Your task to perform on an android device: remove spam from my inbox in the gmail app Image 0: 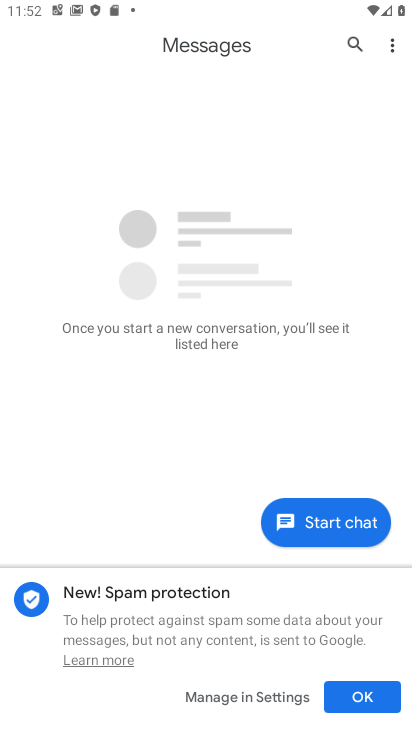
Step 0: press home button
Your task to perform on an android device: remove spam from my inbox in the gmail app Image 1: 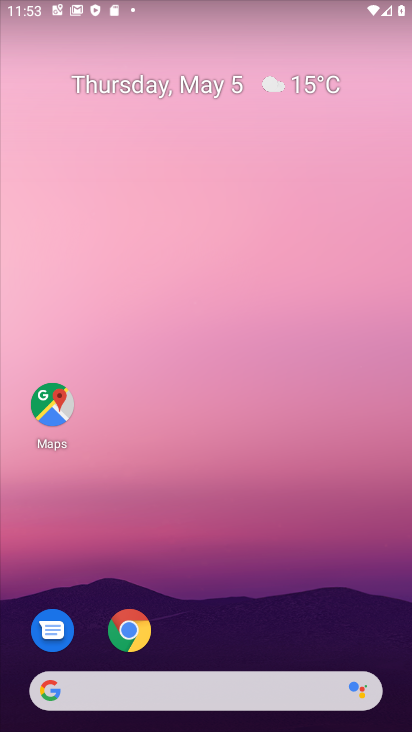
Step 1: drag from (323, 541) to (212, 26)
Your task to perform on an android device: remove spam from my inbox in the gmail app Image 2: 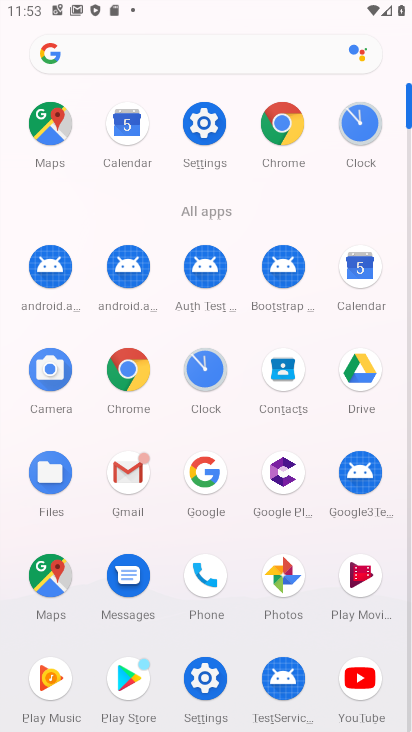
Step 2: drag from (249, 629) to (235, 208)
Your task to perform on an android device: remove spam from my inbox in the gmail app Image 3: 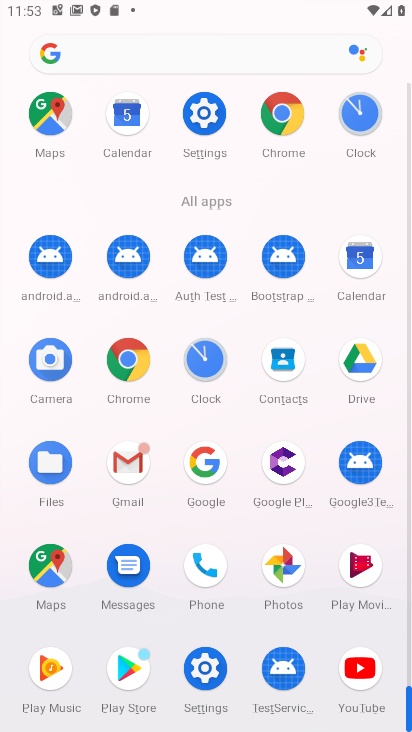
Step 3: click (130, 469)
Your task to perform on an android device: remove spam from my inbox in the gmail app Image 4: 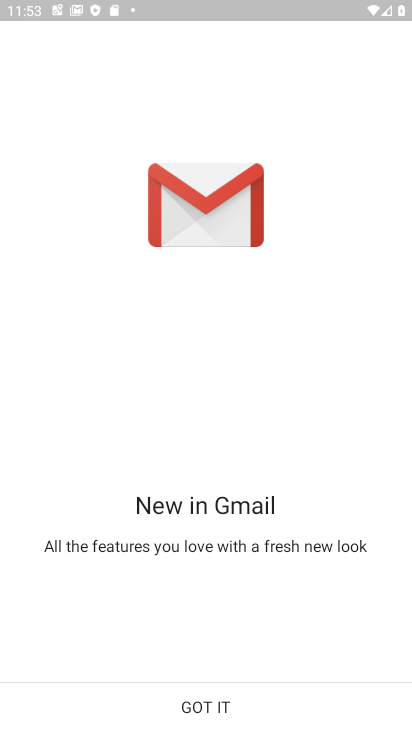
Step 4: click (251, 702)
Your task to perform on an android device: remove spam from my inbox in the gmail app Image 5: 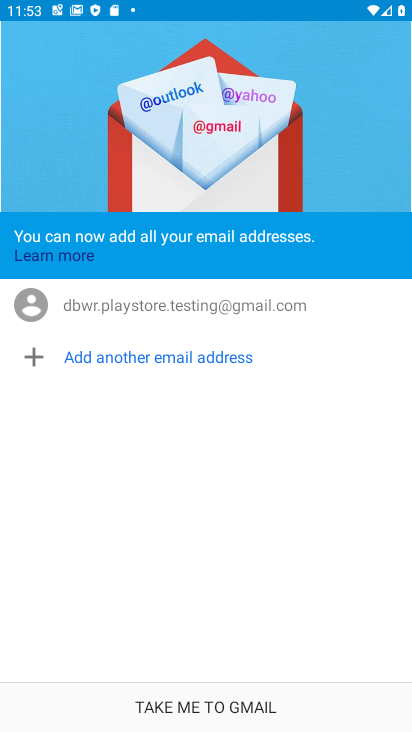
Step 5: click (251, 707)
Your task to perform on an android device: remove spam from my inbox in the gmail app Image 6: 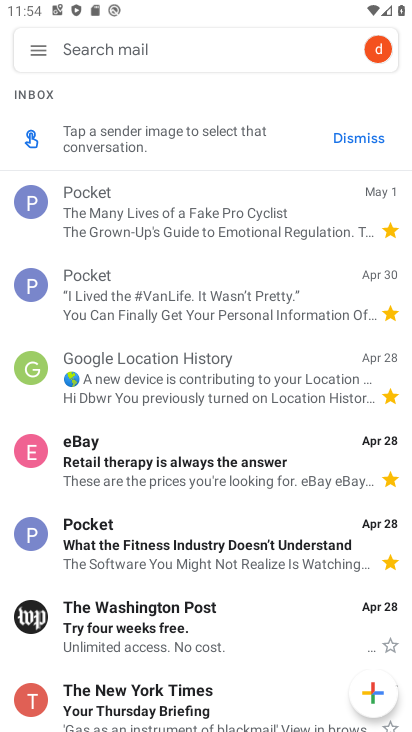
Step 6: drag from (77, 469) to (213, 83)
Your task to perform on an android device: remove spam from my inbox in the gmail app Image 7: 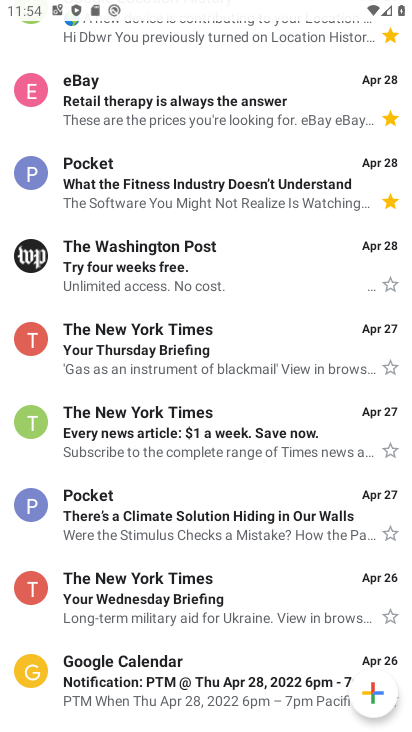
Step 7: drag from (20, 527) to (318, 727)
Your task to perform on an android device: remove spam from my inbox in the gmail app Image 8: 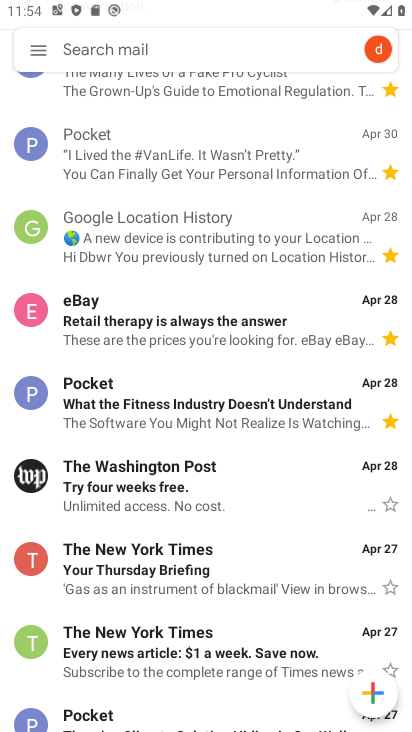
Step 8: drag from (186, 193) to (70, 640)
Your task to perform on an android device: remove spam from my inbox in the gmail app Image 9: 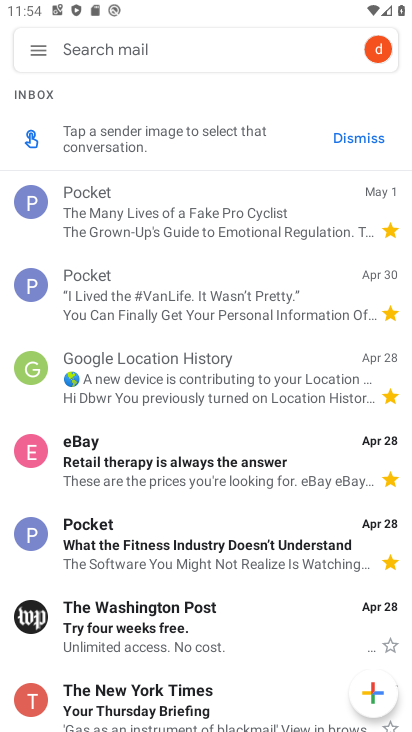
Step 9: click (37, 54)
Your task to perform on an android device: remove spam from my inbox in the gmail app Image 10: 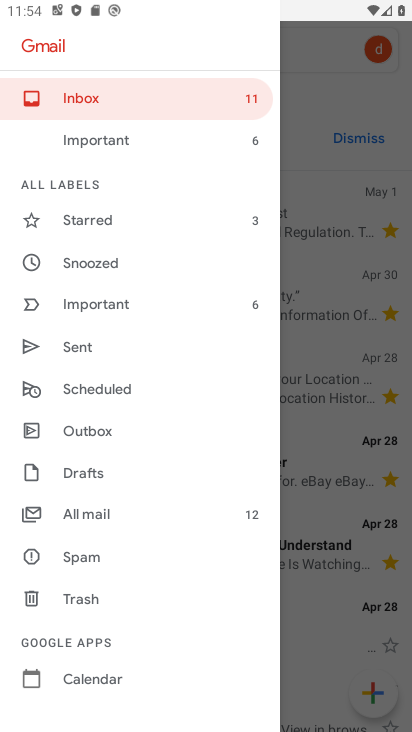
Step 10: drag from (120, 638) to (209, 457)
Your task to perform on an android device: remove spam from my inbox in the gmail app Image 11: 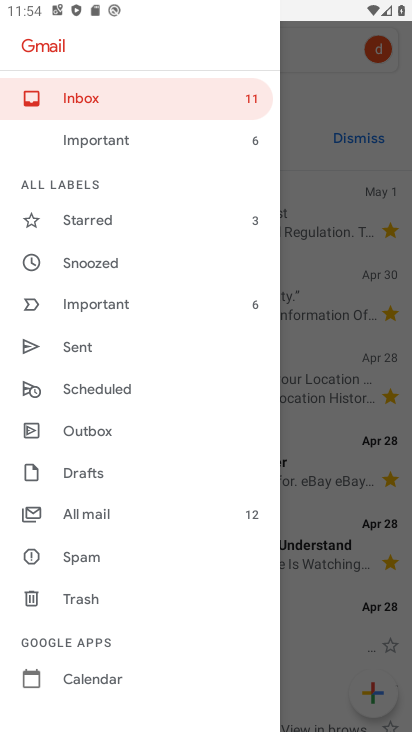
Step 11: click (60, 561)
Your task to perform on an android device: remove spam from my inbox in the gmail app Image 12: 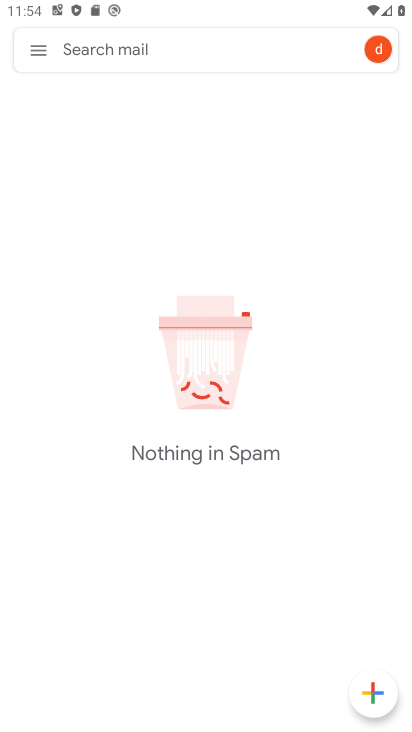
Step 12: task complete